Your task to perform on an android device: Turn on the flashlight Image 0: 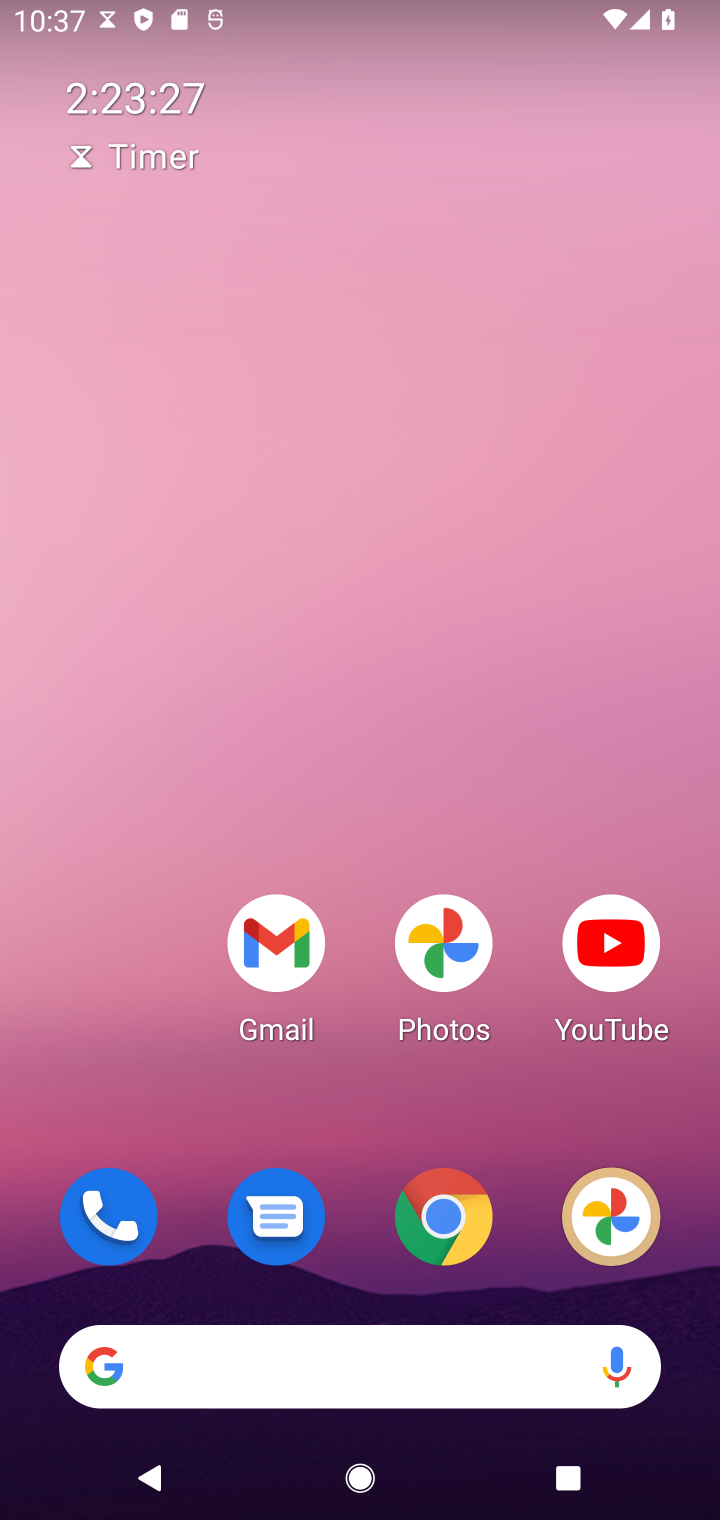
Step 0: drag from (80, 1037) to (354, 2)
Your task to perform on an android device: Turn on the flashlight Image 1: 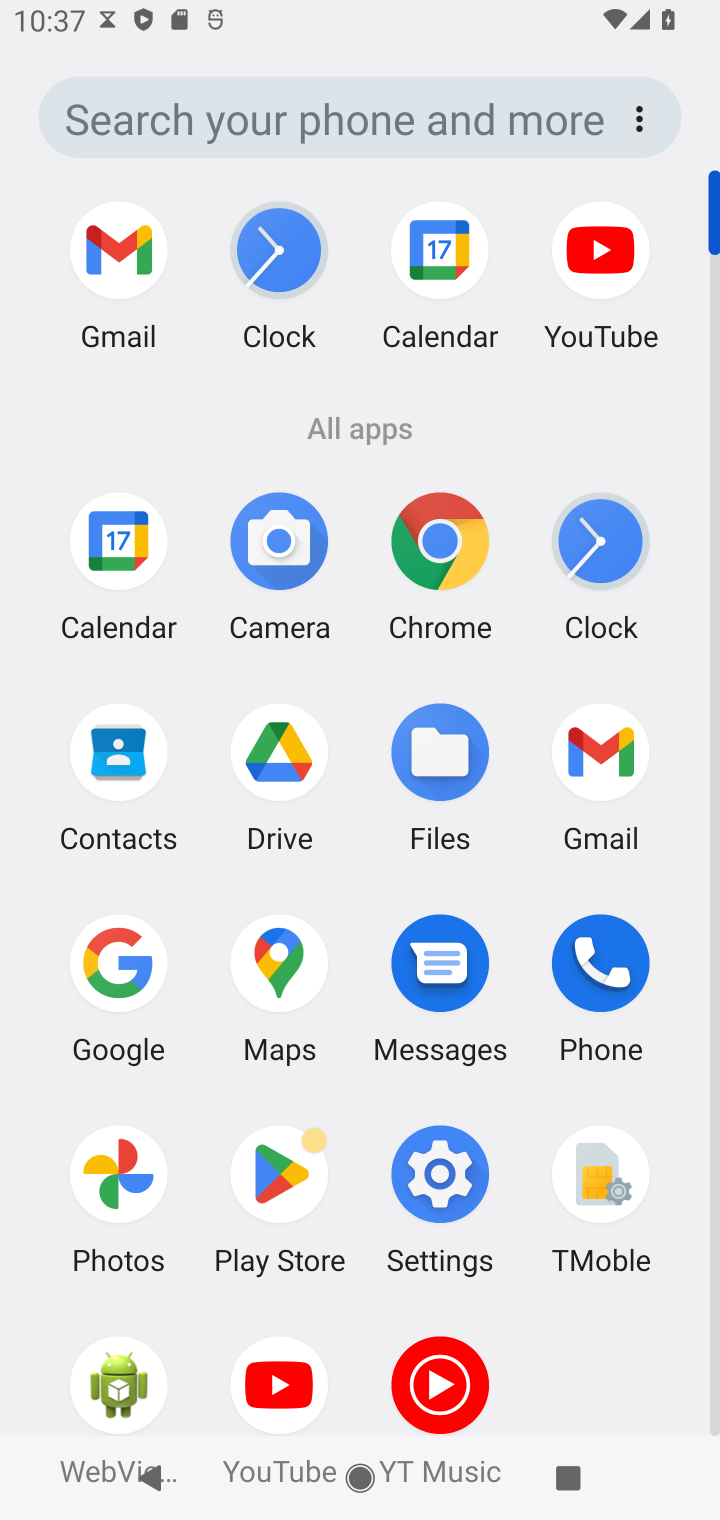
Step 1: click (420, 1191)
Your task to perform on an android device: Turn on the flashlight Image 2: 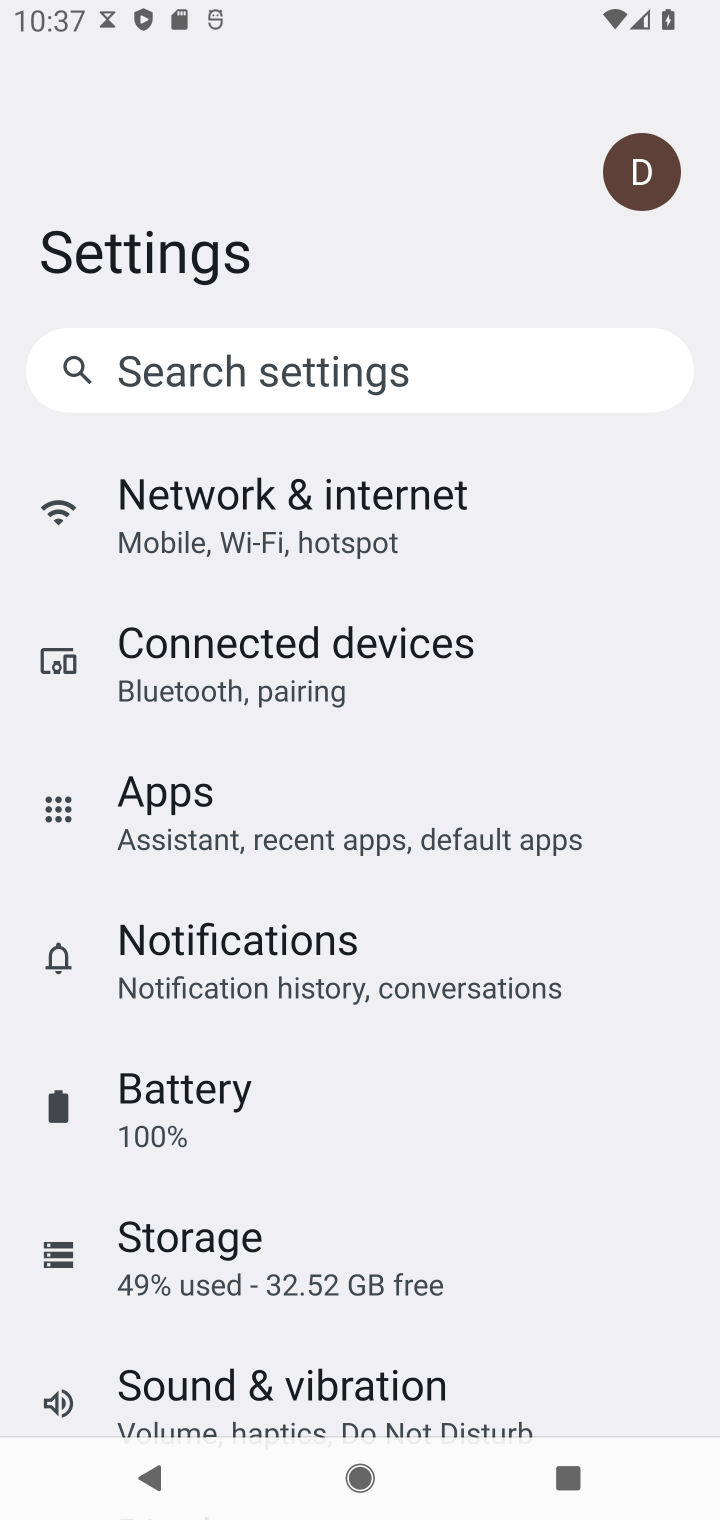
Step 2: click (315, 397)
Your task to perform on an android device: Turn on the flashlight Image 3: 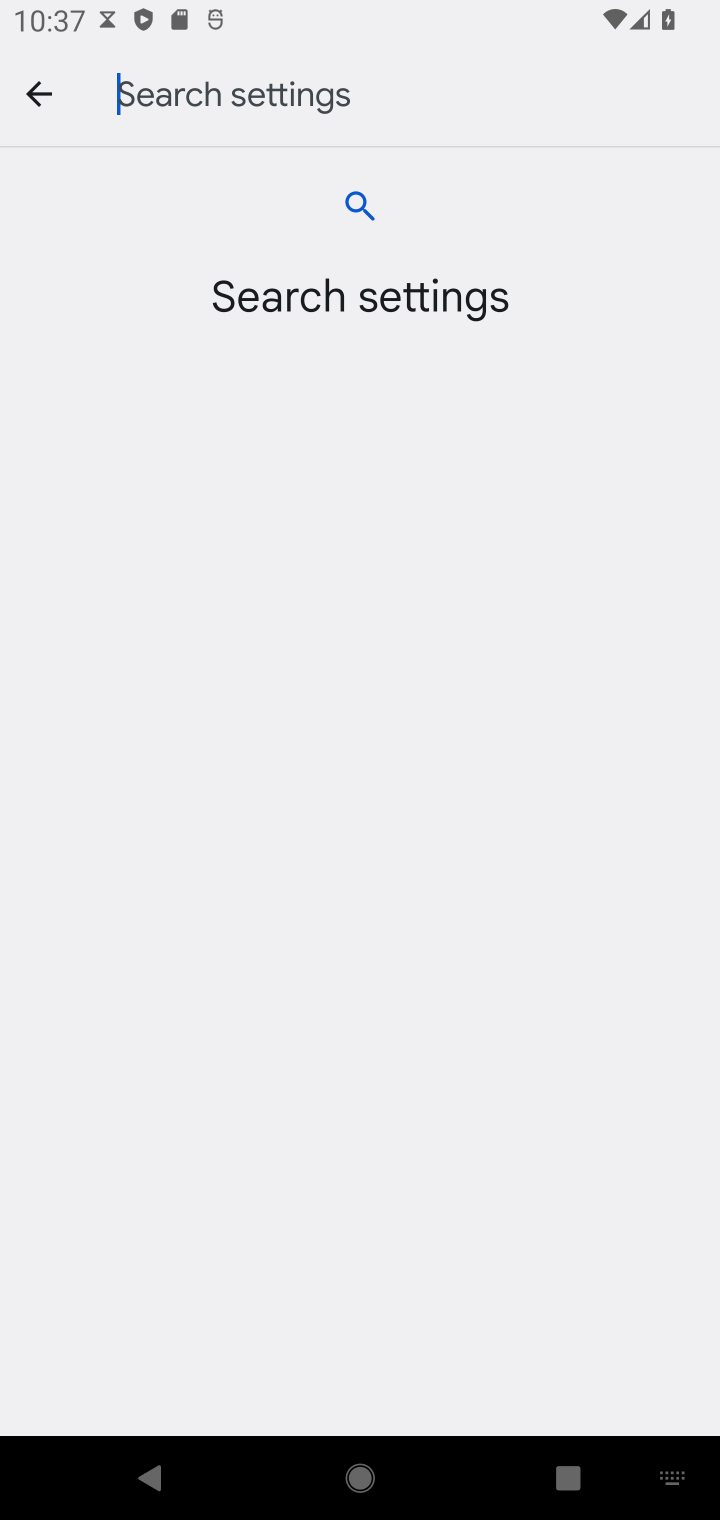
Step 3: type "flashliight"
Your task to perform on an android device: Turn on the flashlight Image 4: 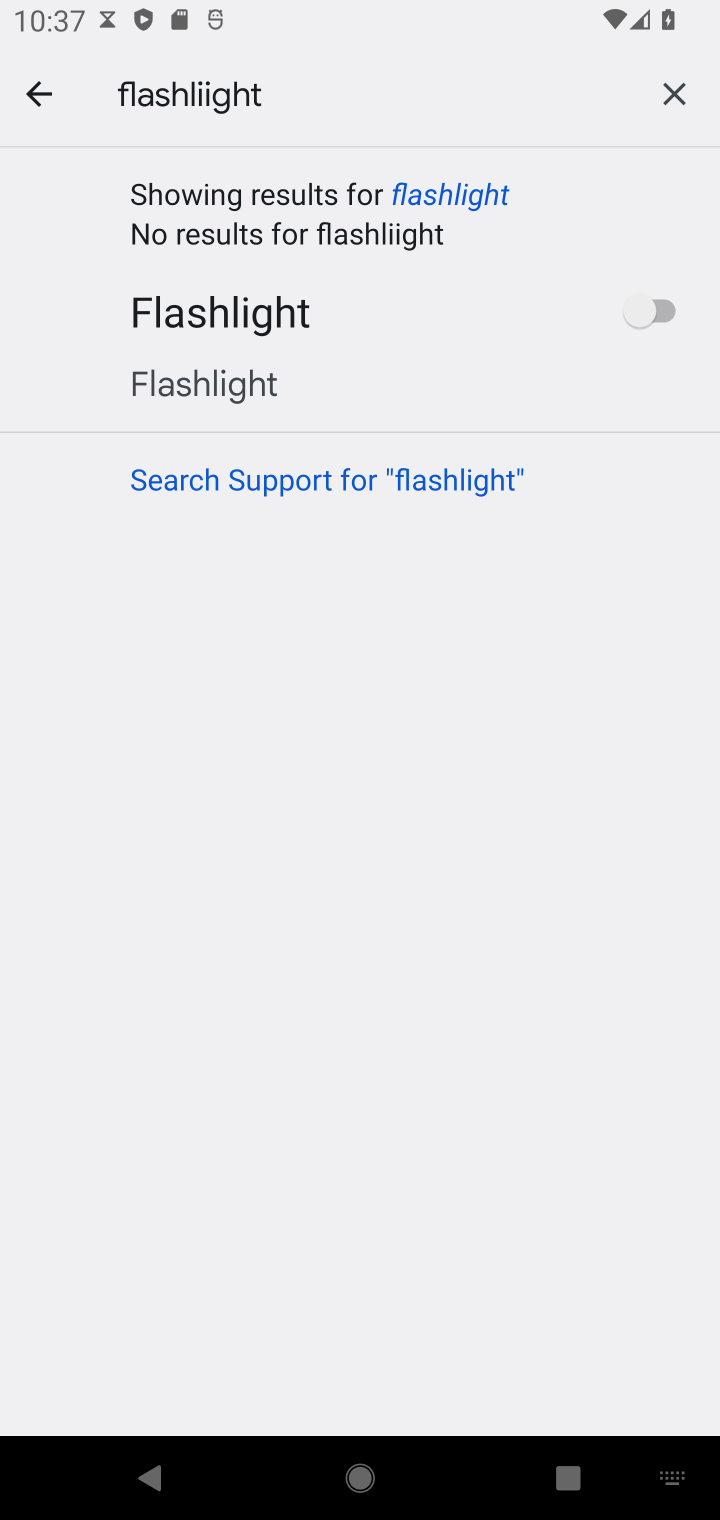
Step 4: click (652, 314)
Your task to perform on an android device: Turn on the flashlight Image 5: 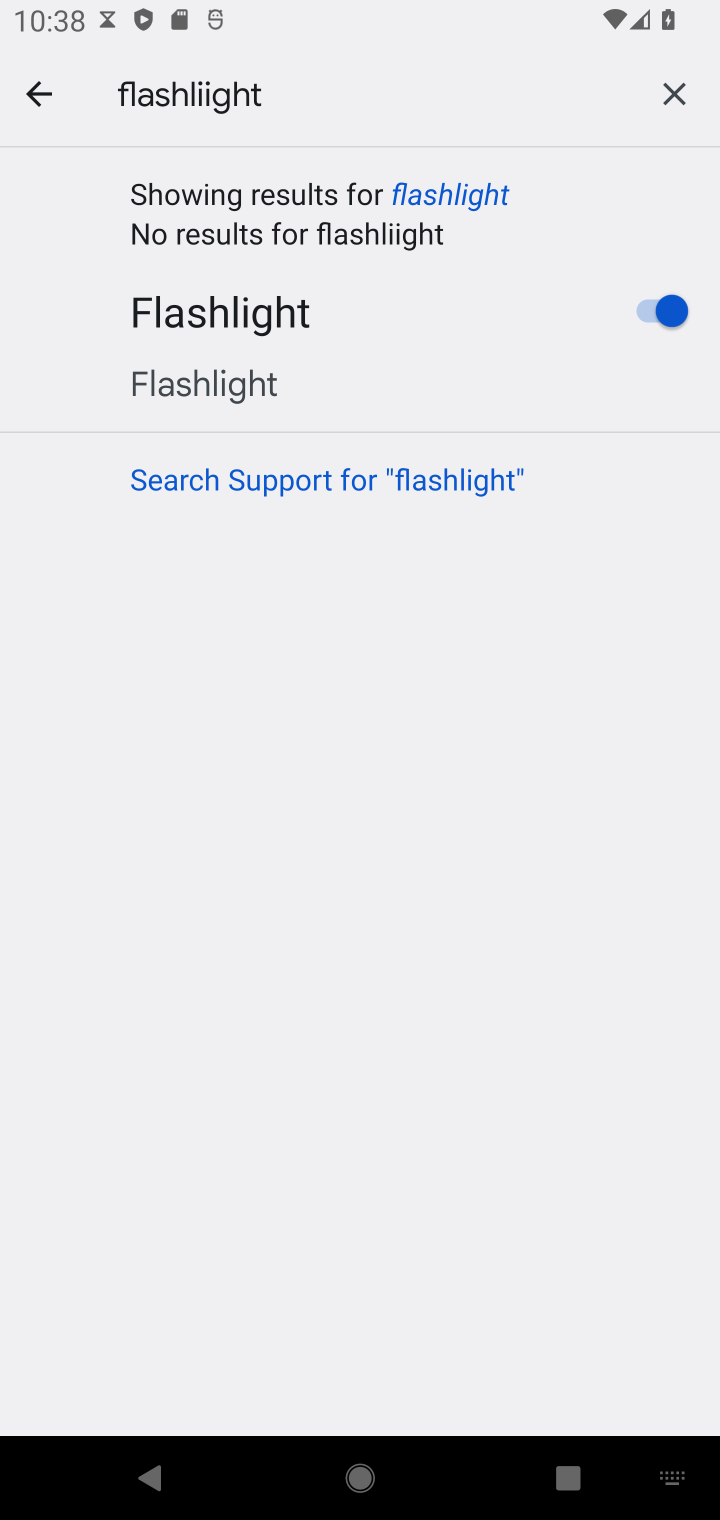
Step 5: task complete